Your task to perform on an android device: What is the recent news? Image 0: 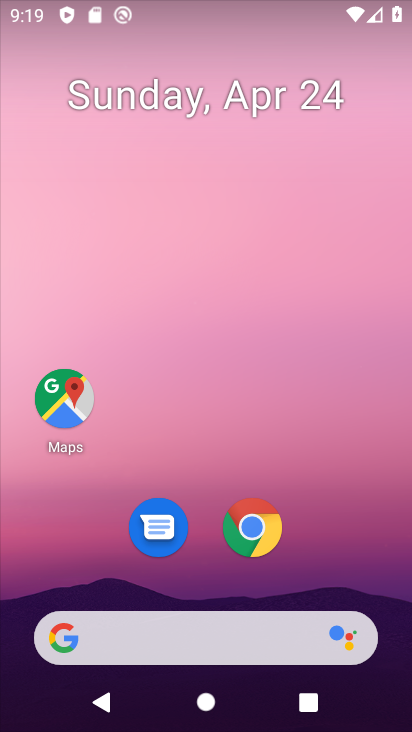
Step 0: click (224, 621)
Your task to perform on an android device: What is the recent news? Image 1: 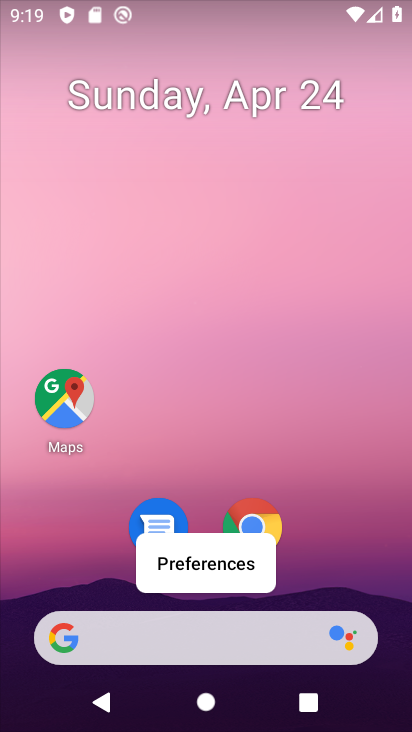
Step 1: click (210, 638)
Your task to perform on an android device: What is the recent news? Image 2: 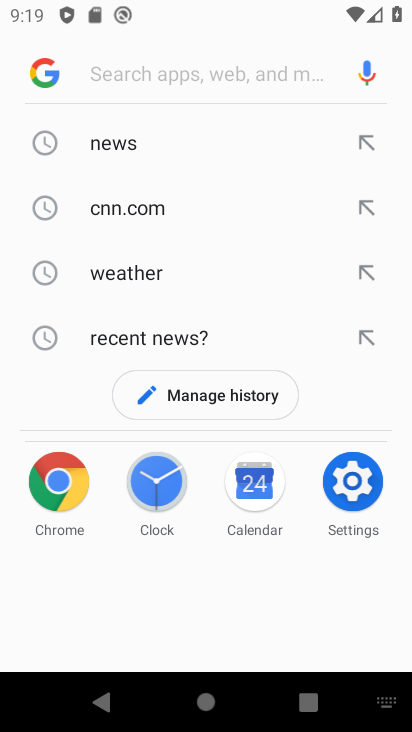
Step 2: click (164, 329)
Your task to perform on an android device: What is the recent news? Image 3: 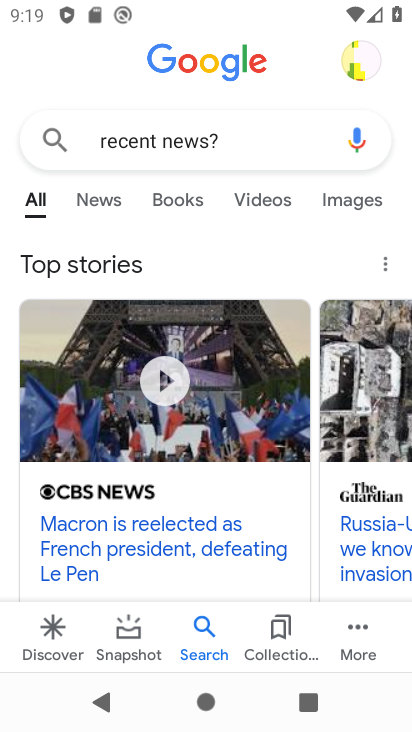
Step 3: task complete